Your task to perform on an android device: toggle javascript in the chrome app Image 0: 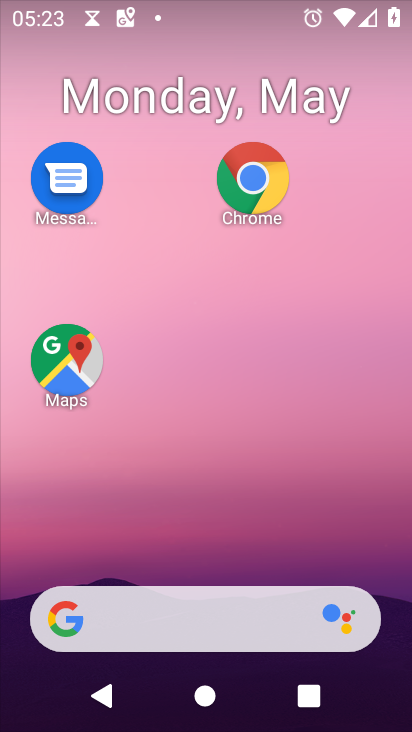
Step 0: click (248, 170)
Your task to perform on an android device: toggle javascript in the chrome app Image 1: 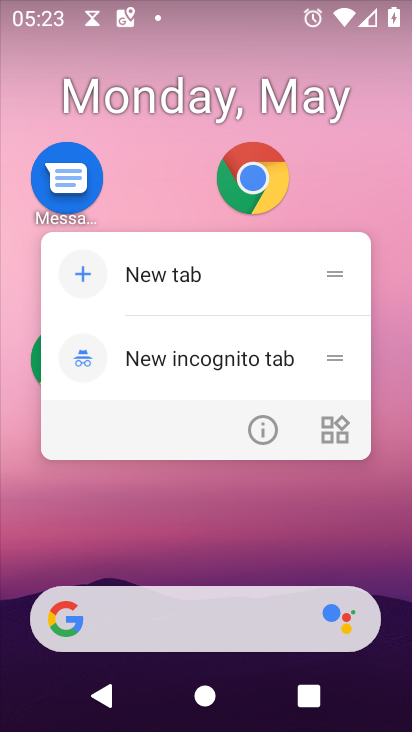
Step 1: click (252, 198)
Your task to perform on an android device: toggle javascript in the chrome app Image 2: 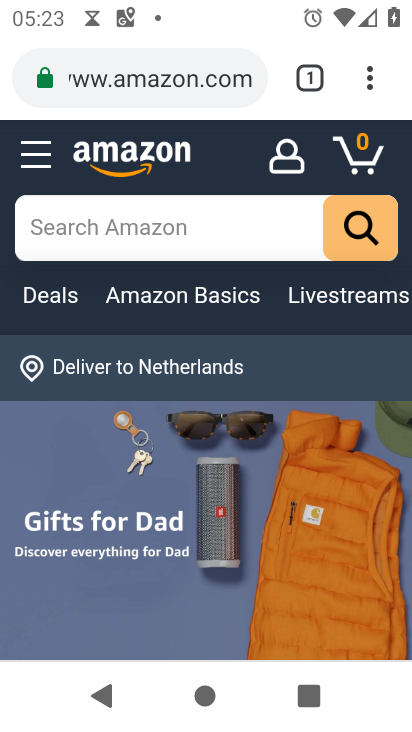
Step 2: click (368, 81)
Your task to perform on an android device: toggle javascript in the chrome app Image 3: 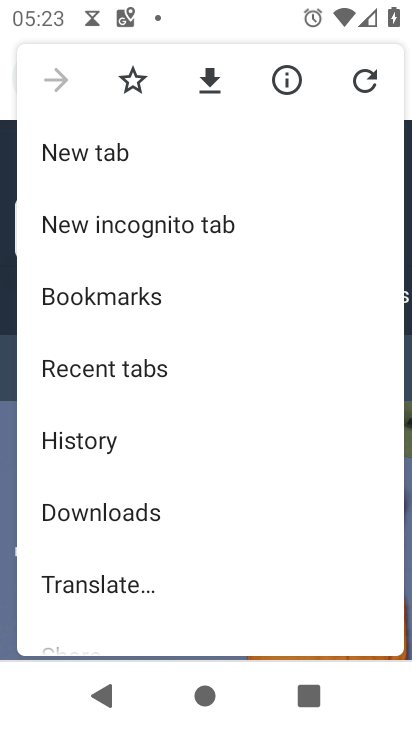
Step 3: drag from (142, 579) to (142, 179)
Your task to perform on an android device: toggle javascript in the chrome app Image 4: 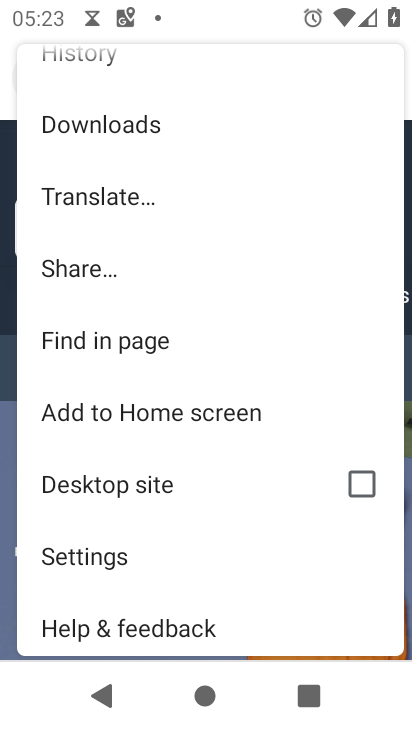
Step 4: click (96, 551)
Your task to perform on an android device: toggle javascript in the chrome app Image 5: 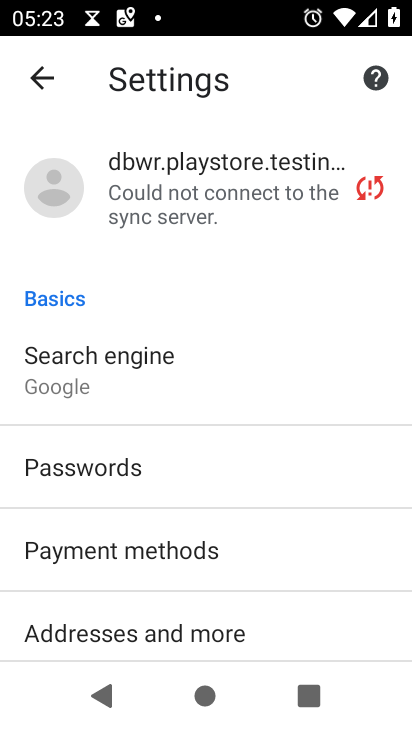
Step 5: drag from (122, 569) to (206, 13)
Your task to perform on an android device: toggle javascript in the chrome app Image 6: 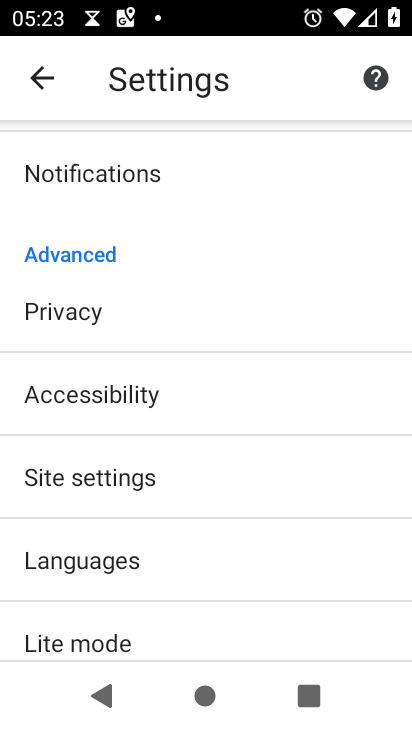
Step 6: click (64, 479)
Your task to perform on an android device: toggle javascript in the chrome app Image 7: 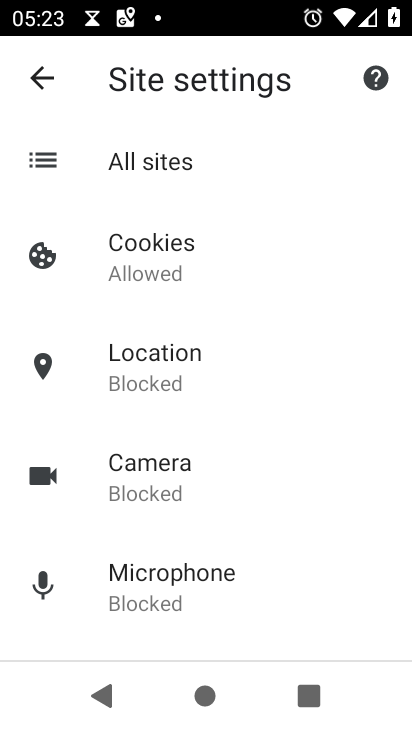
Step 7: drag from (169, 530) to (300, 40)
Your task to perform on an android device: toggle javascript in the chrome app Image 8: 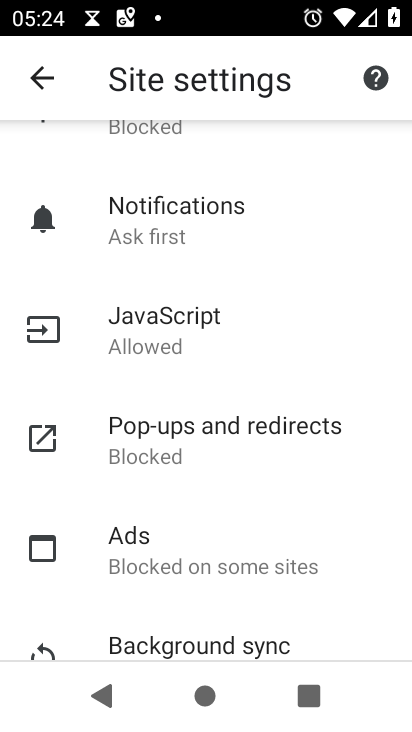
Step 8: click (190, 324)
Your task to perform on an android device: toggle javascript in the chrome app Image 9: 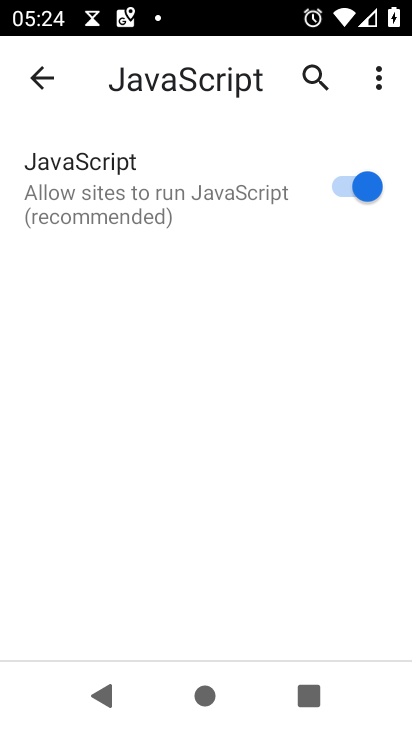
Step 9: click (326, 189)
Your task to perform on an android device: toggle javascript in the chrome app Image 10: 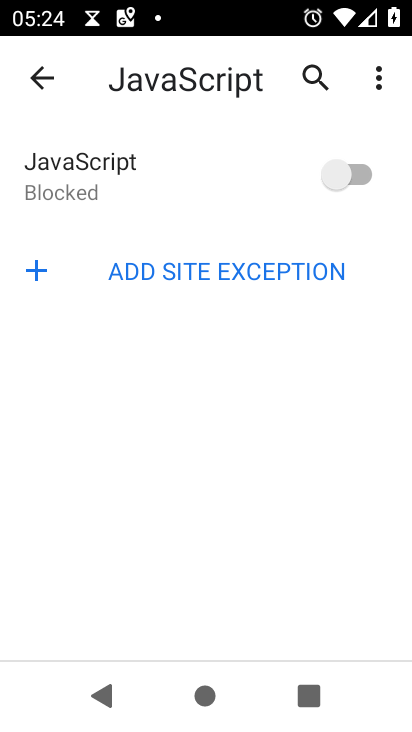
Step 10: task complete